Your task to perform on an android device: Go to CNN.com Image 0: 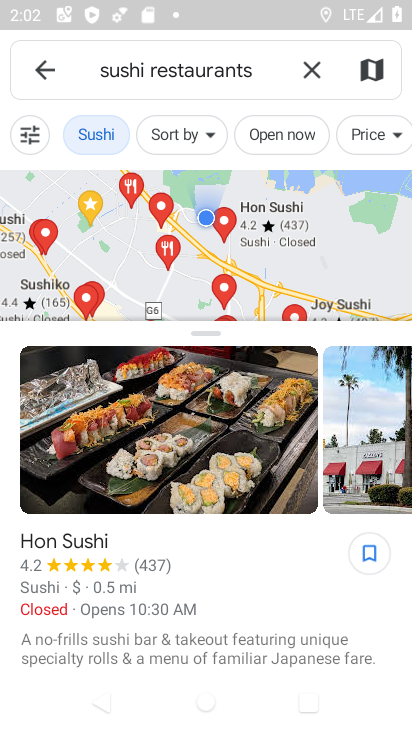
Step 0: press home button
Your task to perform on an android device: Go to CNN.com Image 1: 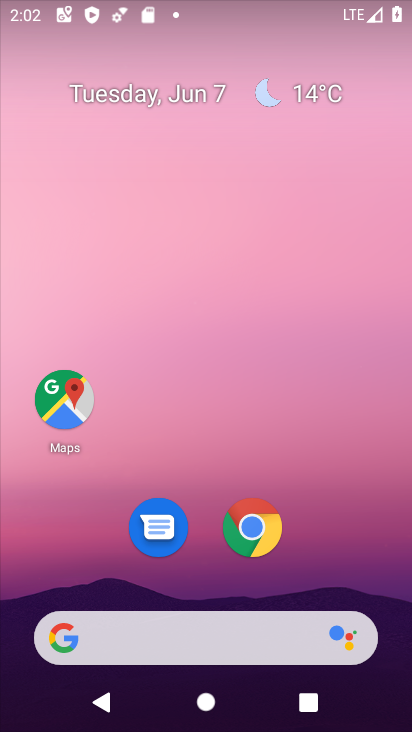
Step 1: click (270, 526)
Your task to perform on an android device: Go to CNN.com Image 2: 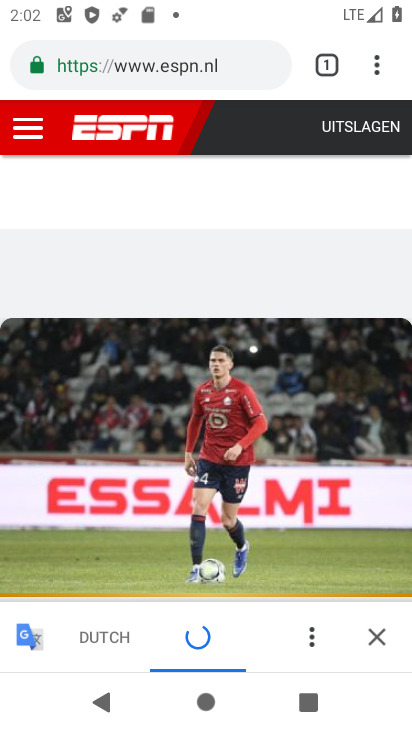
Step 2: click (219, 66)
Your task to perform on an android device: Go to CNN.com Image 3: 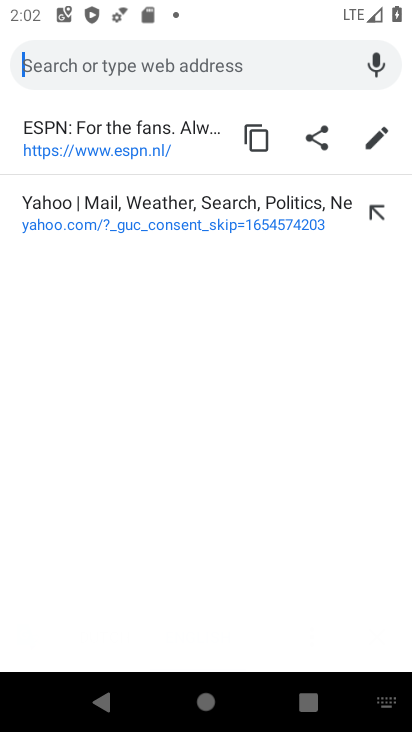
Step 3: type "cnn.com"
Your task to perform on an android device: Go to CNN.com Image 4: 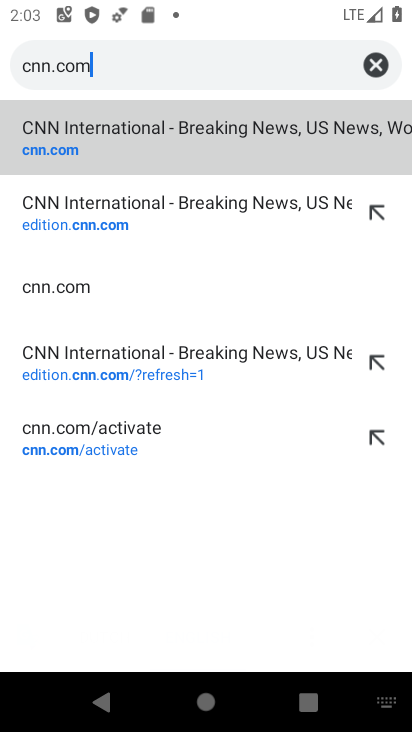
Step 4: click (62, 150)
Your task to perform on an android device: Go to CNN.com Image 5: 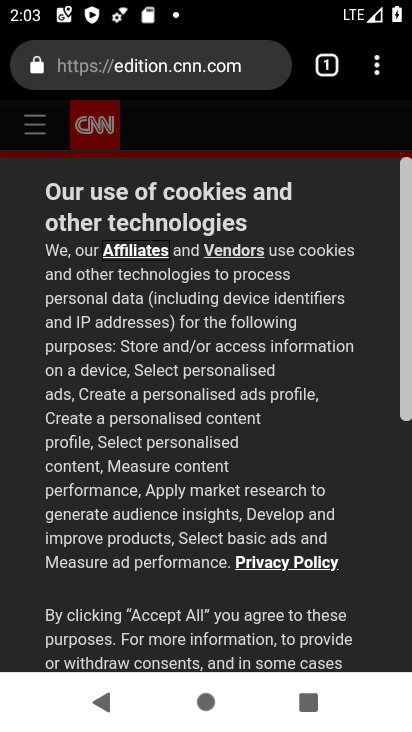
Step 5: task complete